Your task to perform on an android device: change notification settings in the gmail app Image 0: 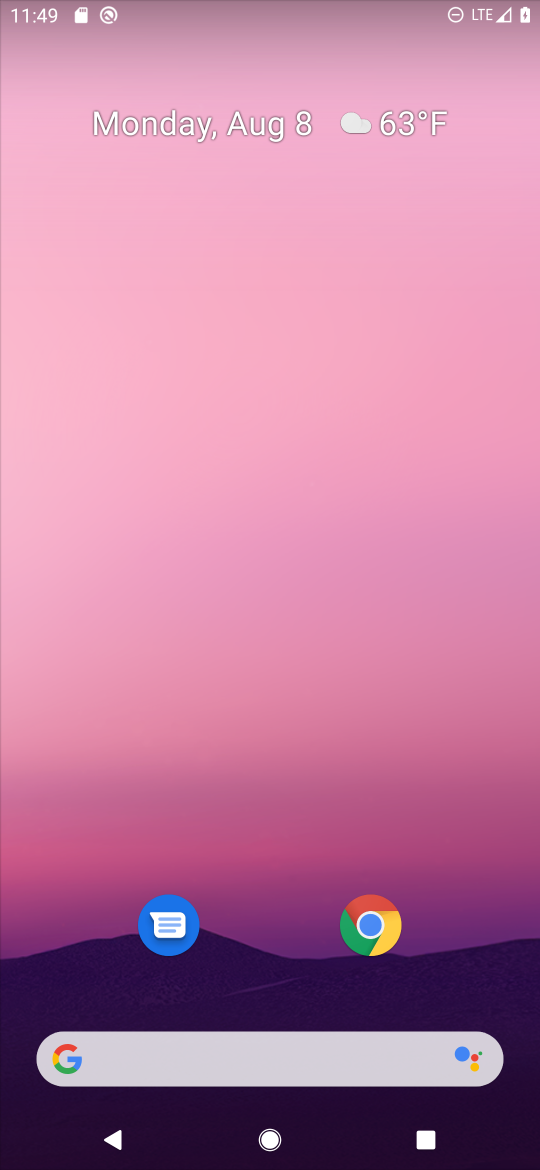
Step 0: drag from (260, 923) to (471, 149)
Your task to perform on an android device: change notification settings in the gmail app Image 1: 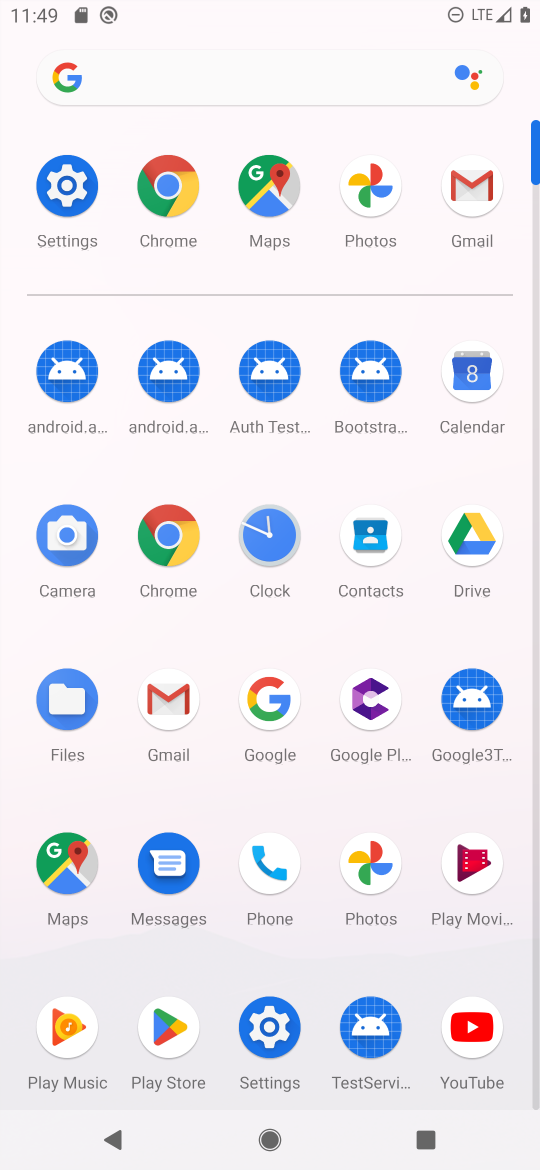
Step 1: click (158, 704)
Your task to perform on an android device: change notification settings in the gmail app Image 2: 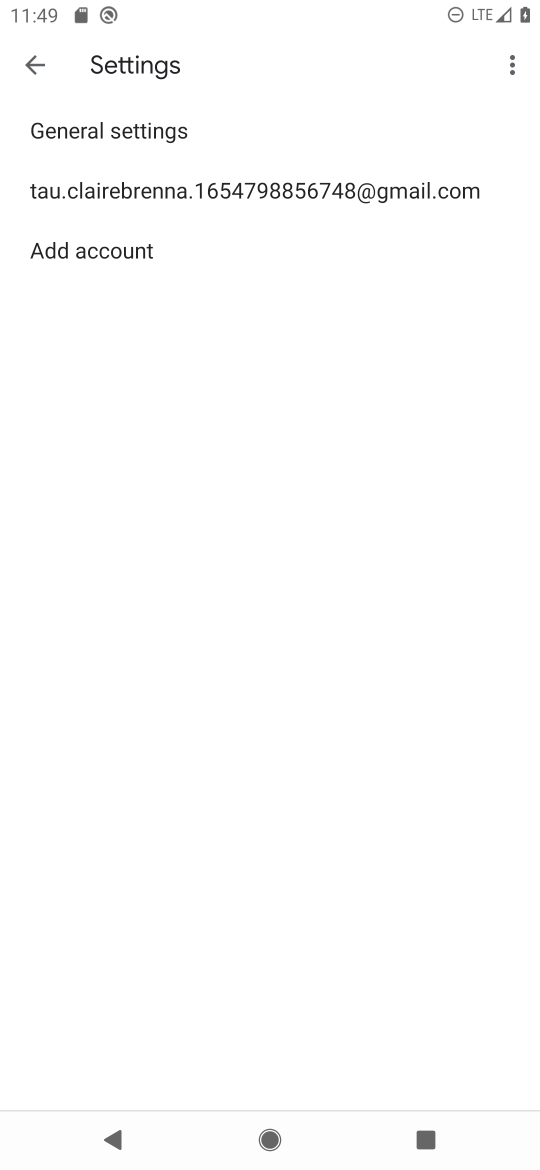
Step 2: click (250, 188)
Your task to perform on an android device: change notification settings in the gmail app Image 3: 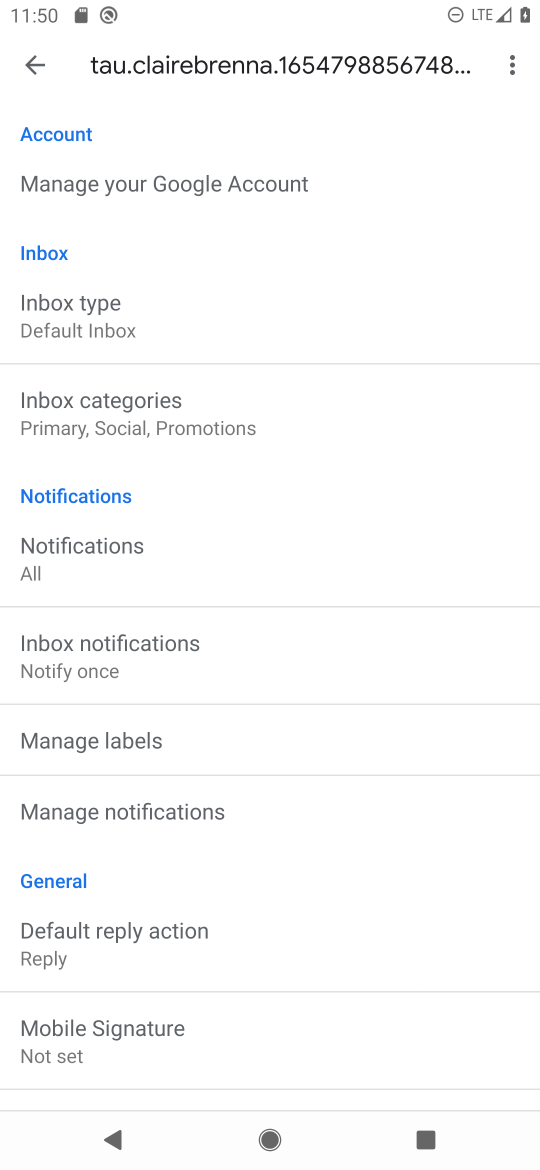
Step 3: click (150, 822)
Your task to perform on an android device: change notification settings in the gmail app Image 4: 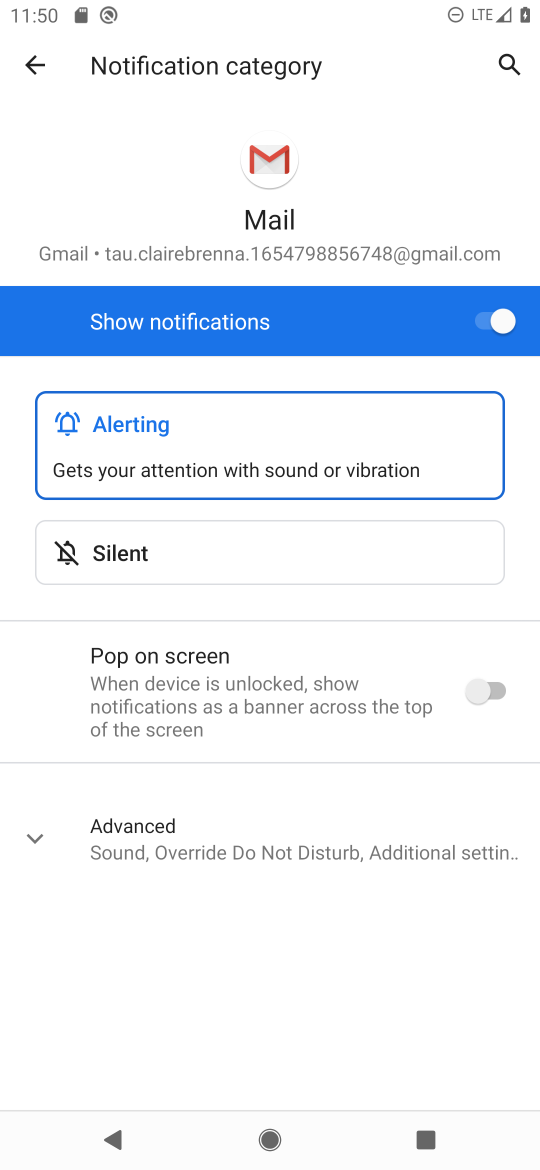
Step 4: click (479, 325)
Your task to perform on an android device: change notification settings in the gmail app Image 5: 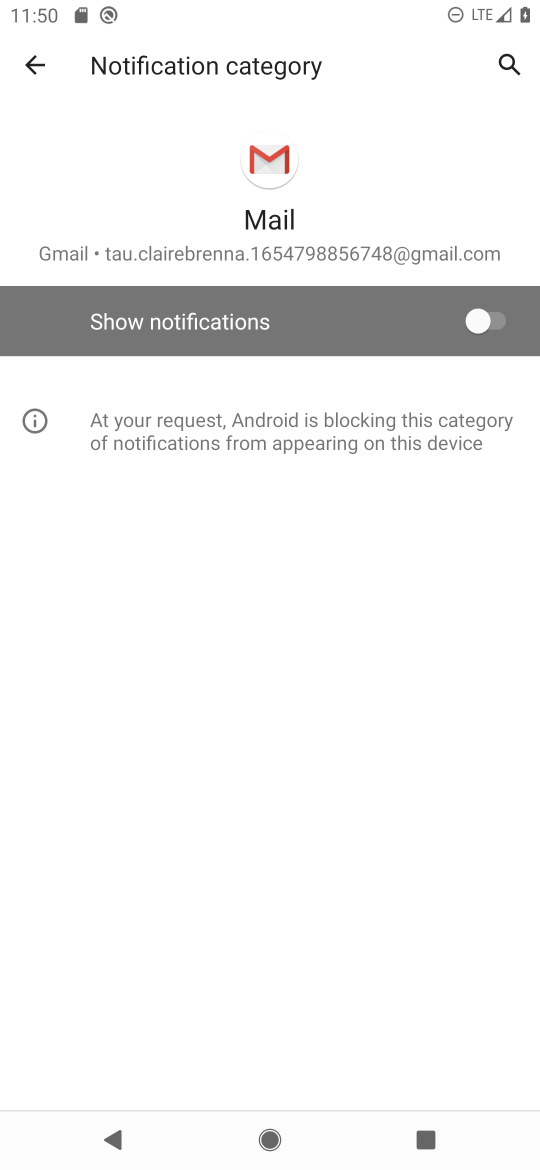
Step 5: task complete